Your task to perform on an android device: Go to CNN.com Image 0: 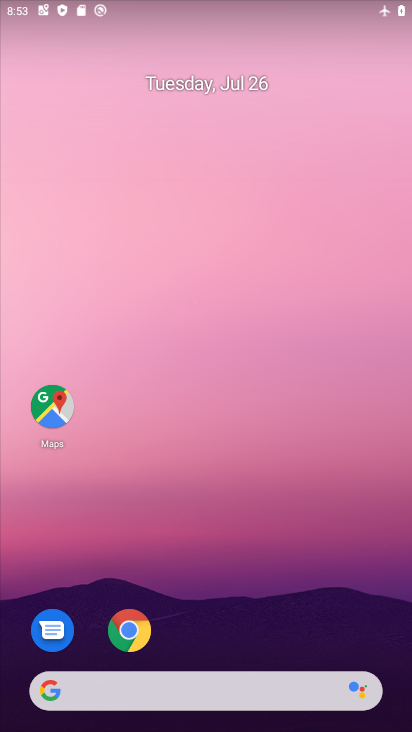
Step 0: click (231, 690)
Your task to perform on an android device: Go to CNN.com Image 1: 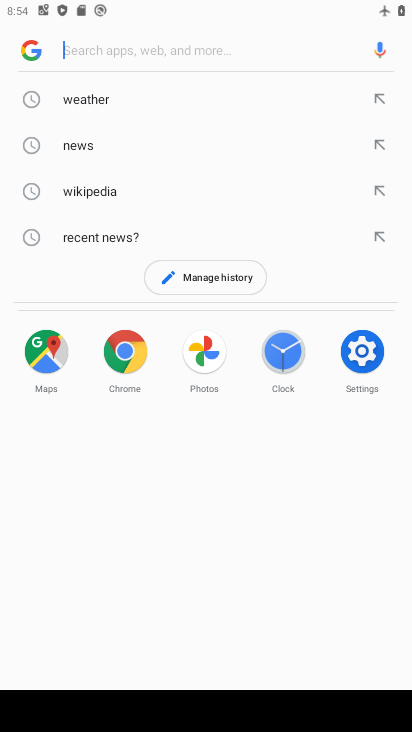
Step 1: type "cnn.com"
Your task to perform on an android device: Go to CNN.com Image 2: 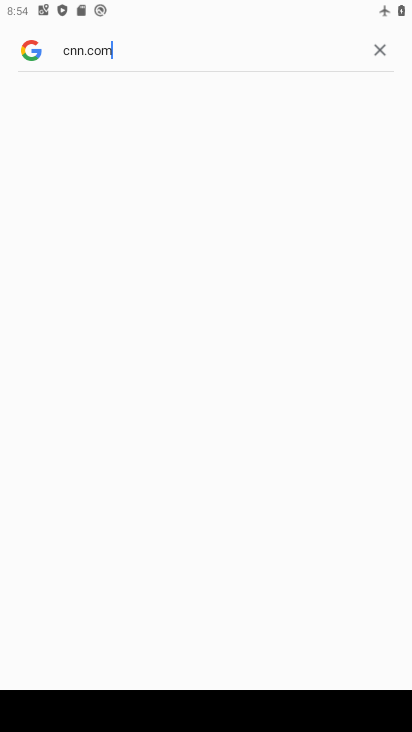
Step 2: task complete